Your task to perform on an android device: Open CNN.com Image 0: 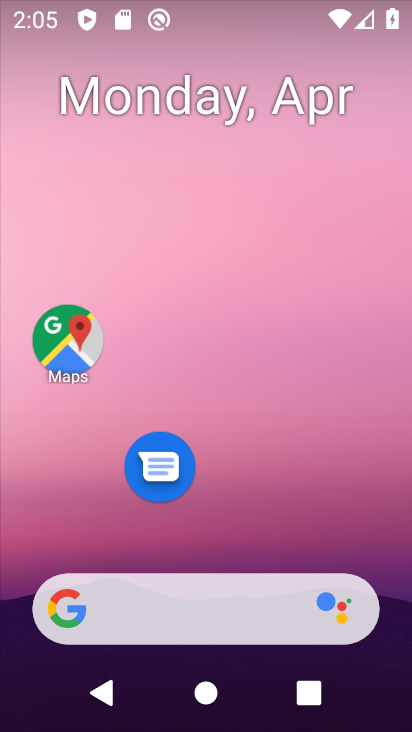
Step 0: drag from (282, 541) to (258, 83)
Your task to perform on an android device: Open CNN.com Image 1: 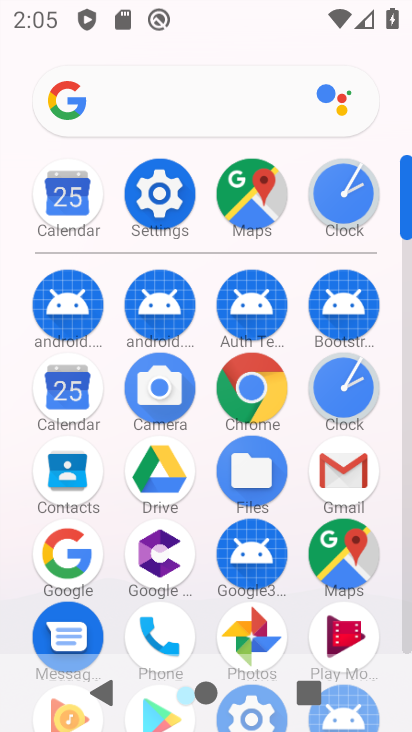
Step 1: click (266, 378)
Your task to perform on an android device: Open CNN.com Image 2: 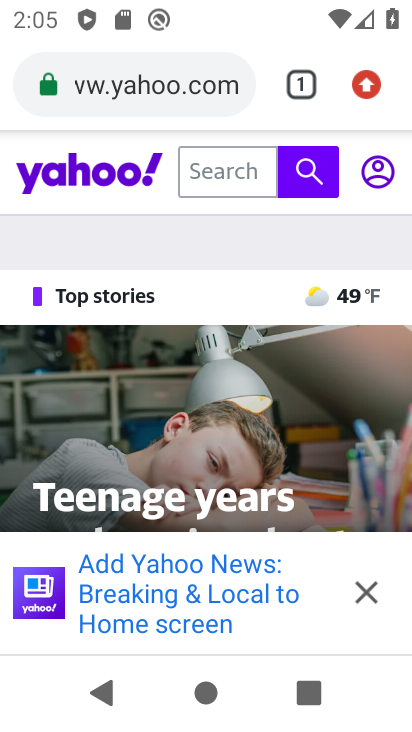
Step 2: click (163, 85)
Your task to perform on an android device: Open CNN.com Image 3: 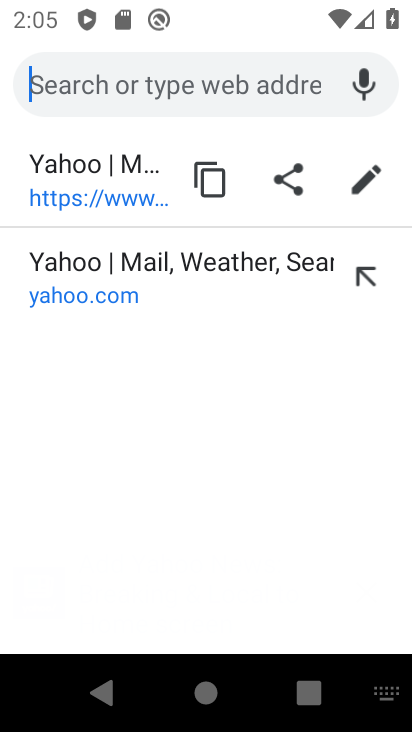
Step 3: type "CNN.com"
Your task to perform on an android device: Open CNN.com Image 4: 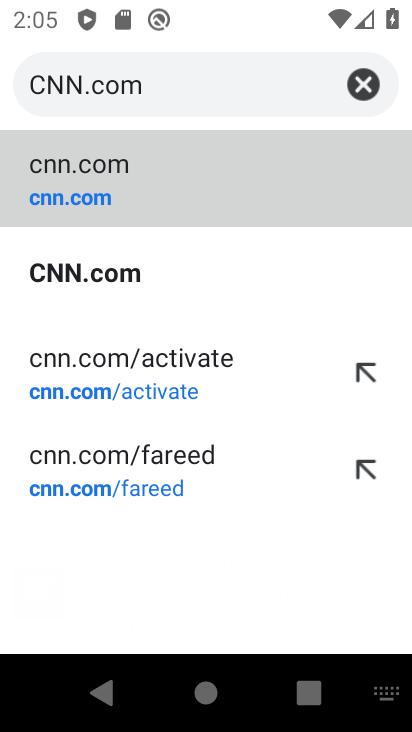
Step 4: click (38, 161)
Your task to perform on an android device: Open CNN.com Image 5: 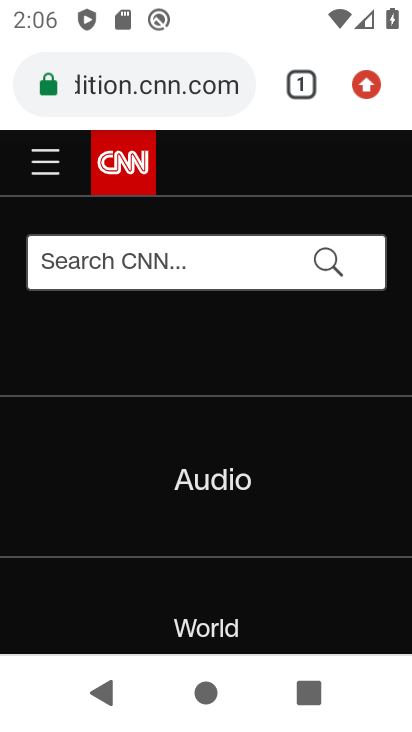
Step 5: task complete